Your task to perform on an android device: Go to battery settings Image 0: 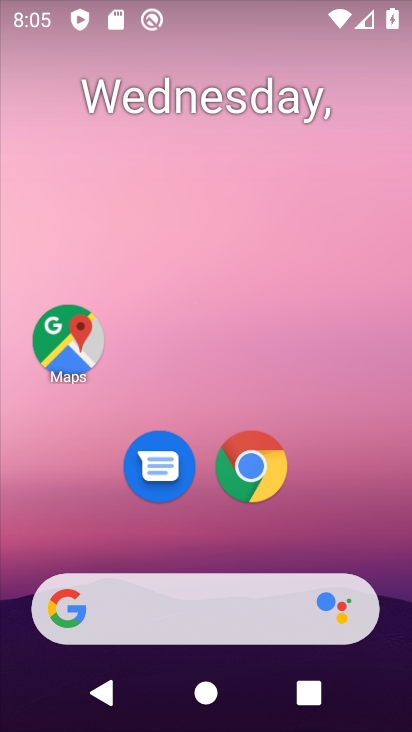
Step 0: drag from (238, 523) to (290, 19)
Your task to perform on an android device: Go to battery settings Image 1: 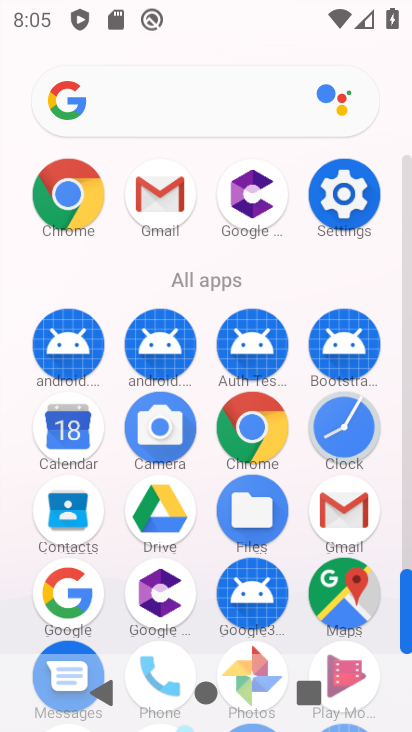
Step 1: click (350, 216)
Your task to perform on an android device: Go to battery settings Image 2: 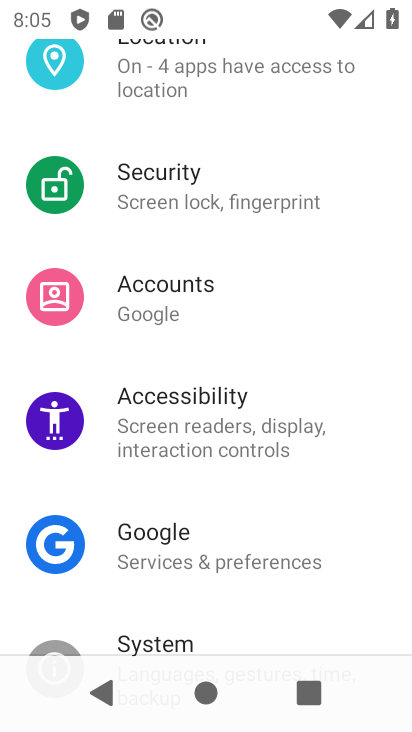
Step 2: drag from (204, 205) to (196, 506)
Your task to perform on an android device: Go to battery settings Image 3: 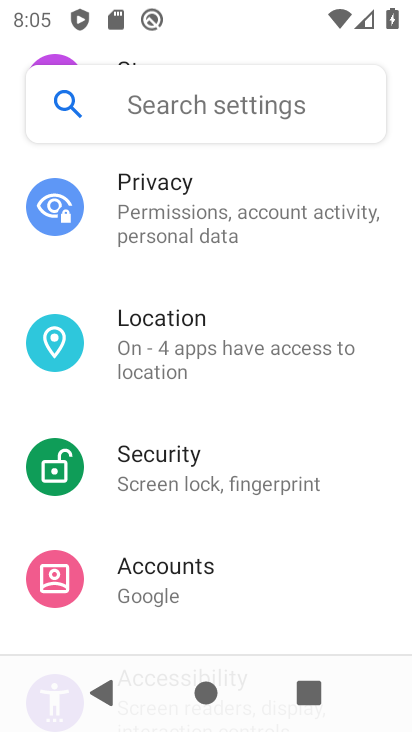
Step 3: drag from (219, 245) to (204, 569)
Your task to perform on an android device: Go to battery settings Image 4: 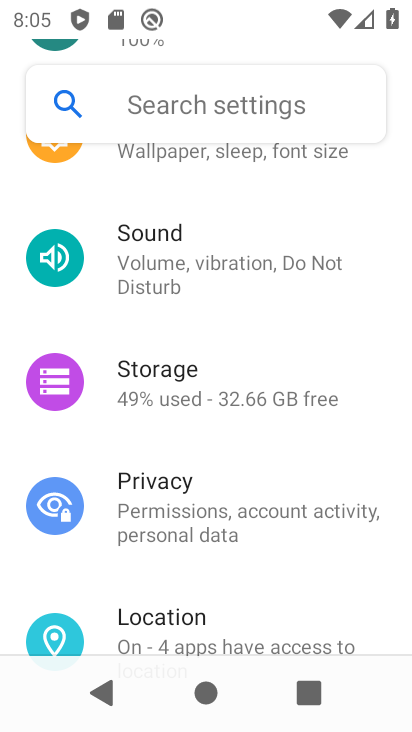
Step 4: drag from (183, 258) to (191, 571)
Your task to perform on an android device: Go to battery settings Image 5: 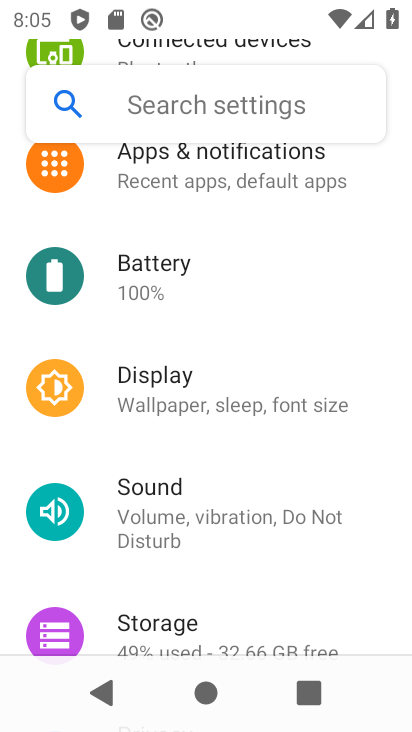
Step 5: click (175, 265)
Your task to perform on an android device: Go to battery settings Image 6: 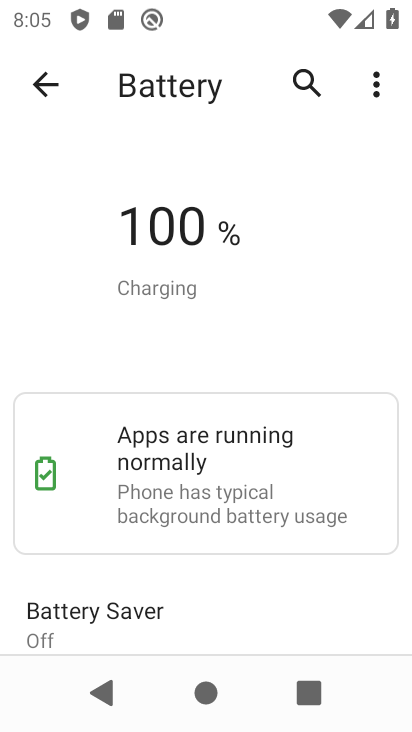
Step 6: task complete